Your task to perform on an android device: clear history in the chrome app Image 0: 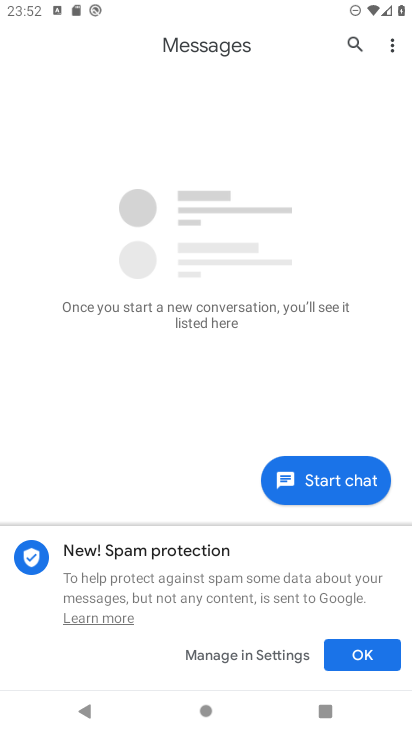
Step 0: press home button
Your task to perform on an android device: clear history in the chrome app Image 1: 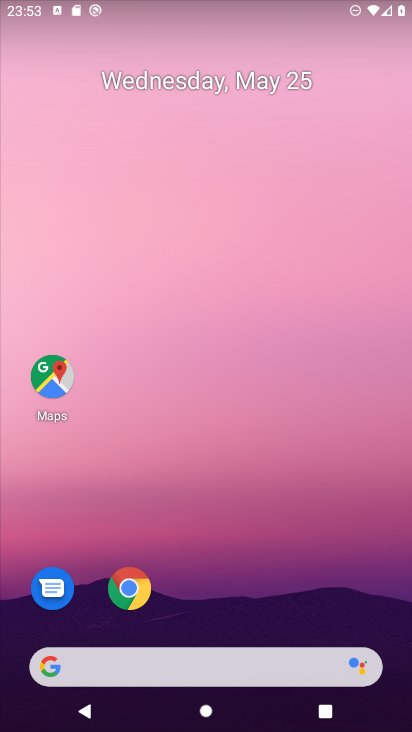
Step 1: click (134, 590)
Your task to perform on an android device: clear history in the chrome app Image 2: 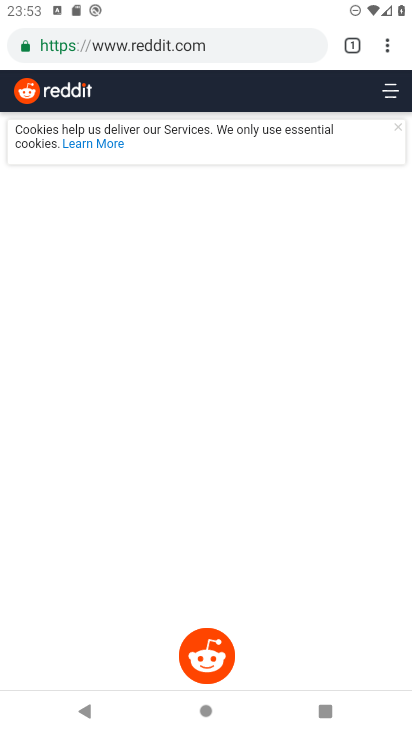
Step 2: click (385, 43)
Your task to perform on an android device: clear history in the chrome app Image 3: 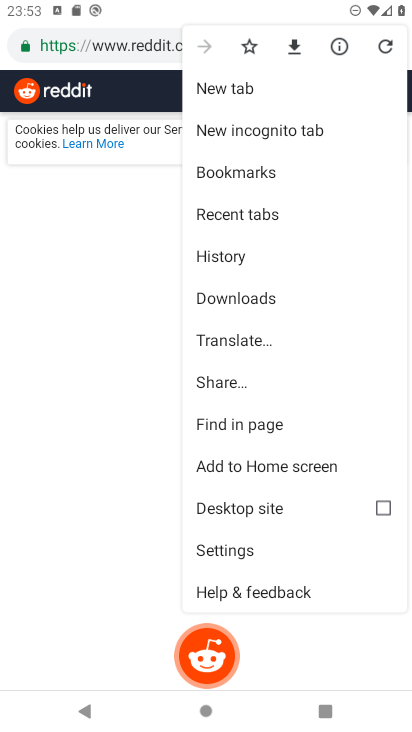
Step 3: click (222, 257)
Your task to perform on an android device: clear history in the chrome app Image 4: 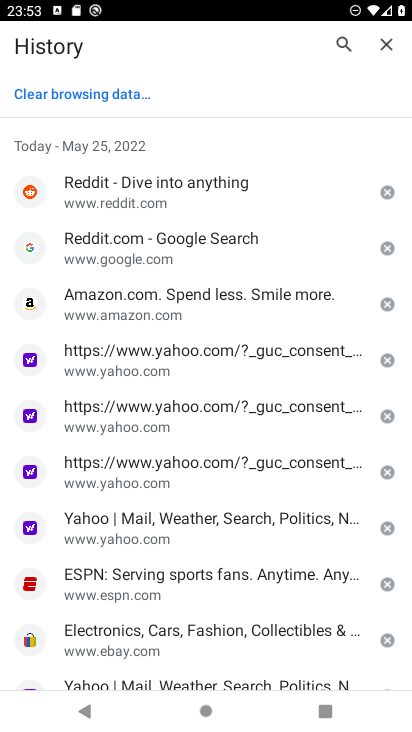
Step 4: click (77, 82)
Your task to perform on an android device: clear history in the chrome app Image 5: 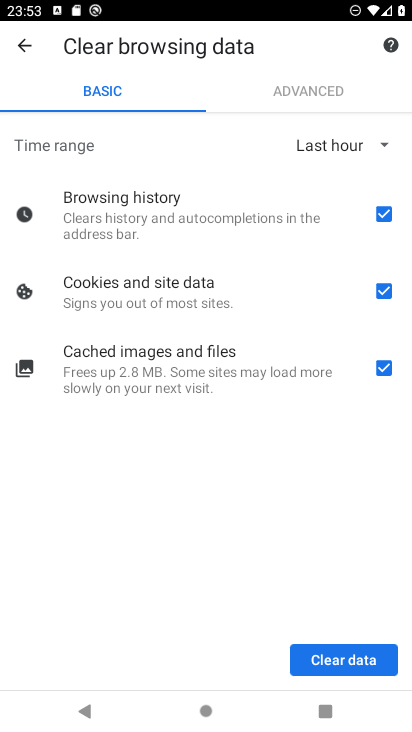
Step 5: click (363, 655)
Your task to perform on an android device: clear history in the chrome app Image 6: 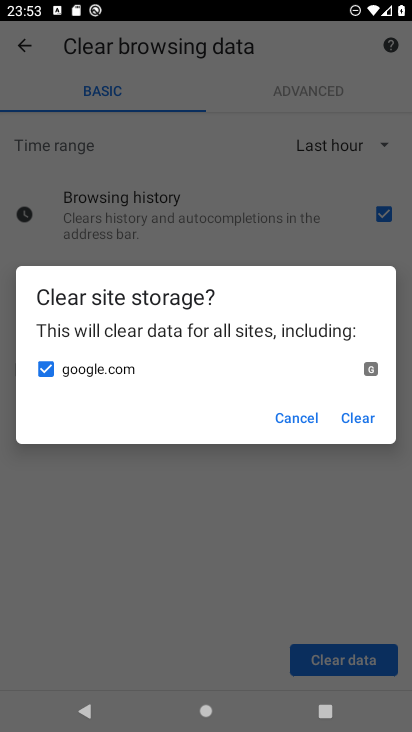
Step 6: task complete